Your task to perform on an android device: open a bookmark in the chrome app Image 0: 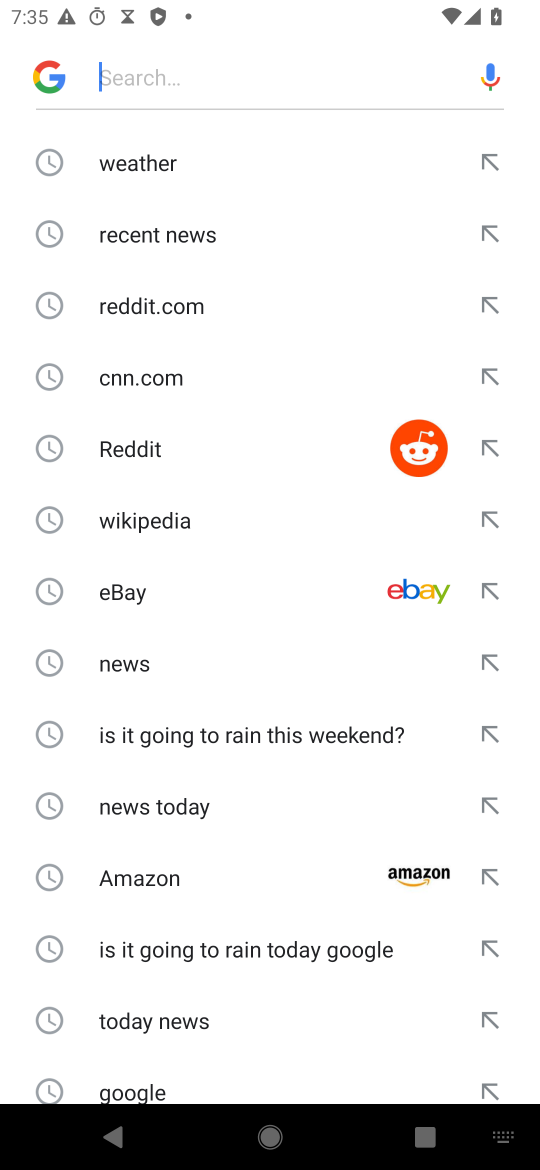
Step 0: press home button
Your task to perform on an android device: open a bookmark in the chrome app Image 1: 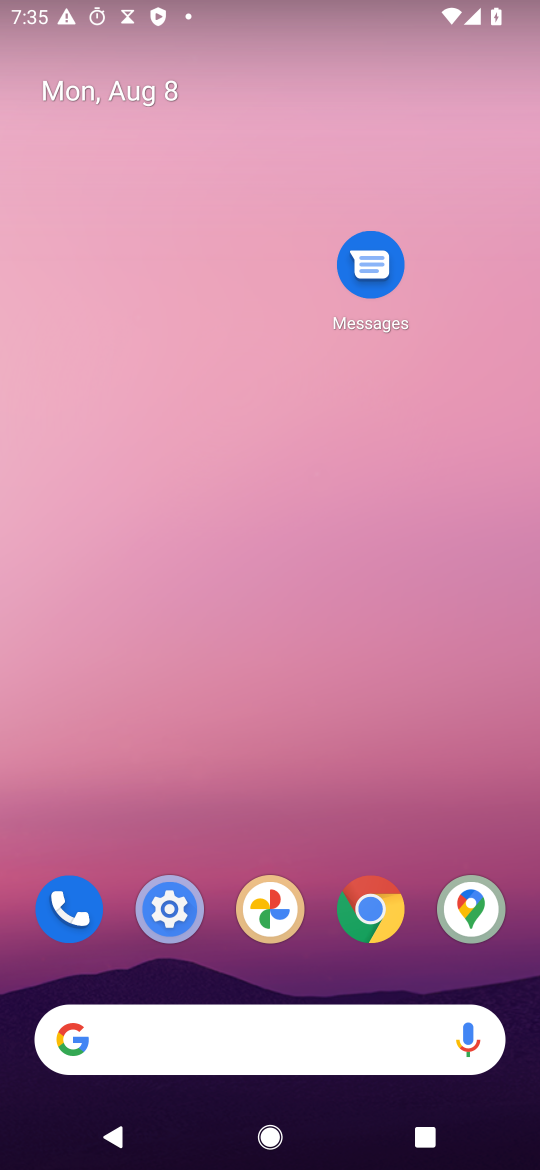
Step 1: click (375, 906)
Your task to perform on an android device: open a bookmark in the chrome app Image 2: 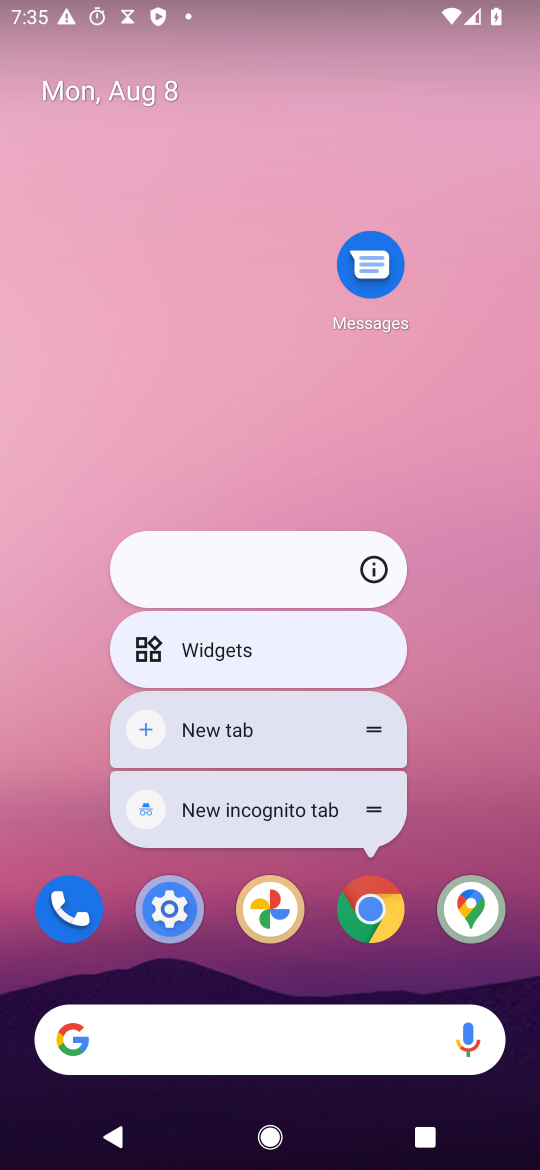
Step 2: click (375, 906)
Your task to perform on an android device: open a bookmark in the chrome app Image 3: 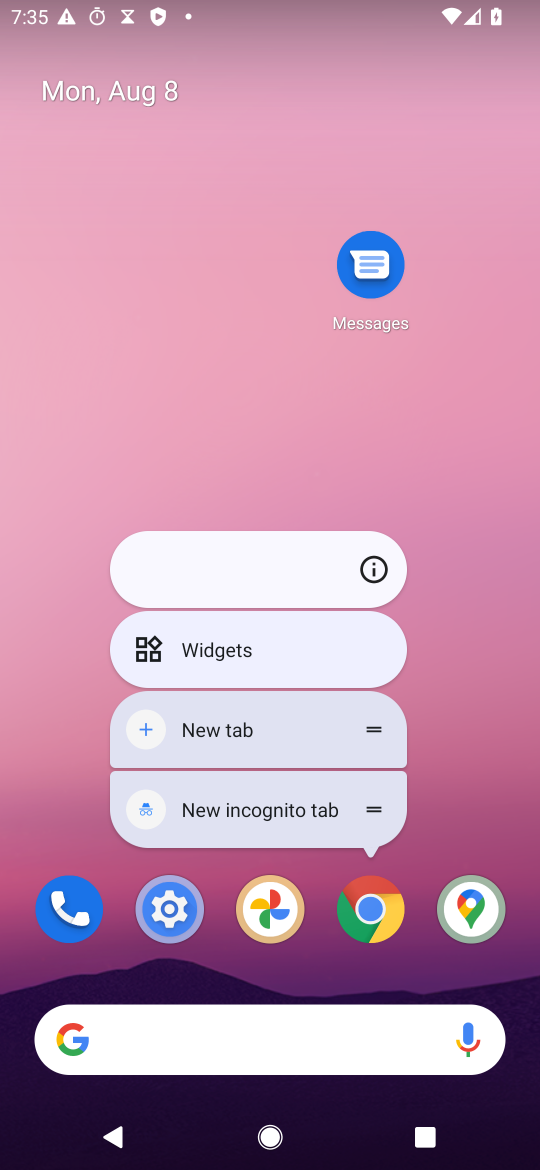
Step 3: click (368, 920)
Your task to perform on an android device: open a bookmark in the chrome app Image 4: 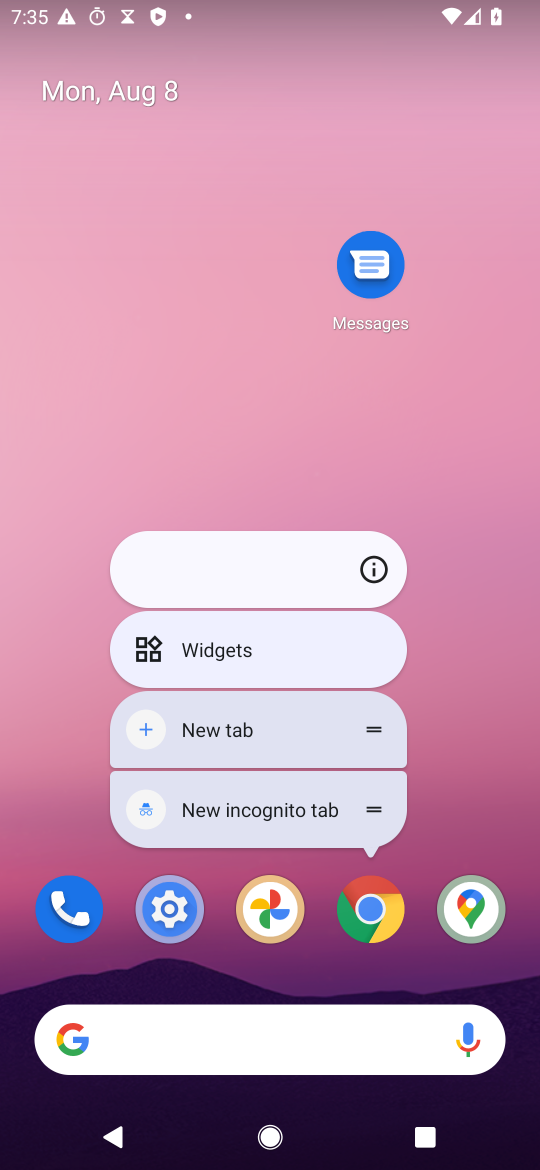
Step 4: click (368, 920)
Your task to perform on an android device: open a bookmark in the chrome app Image 5: 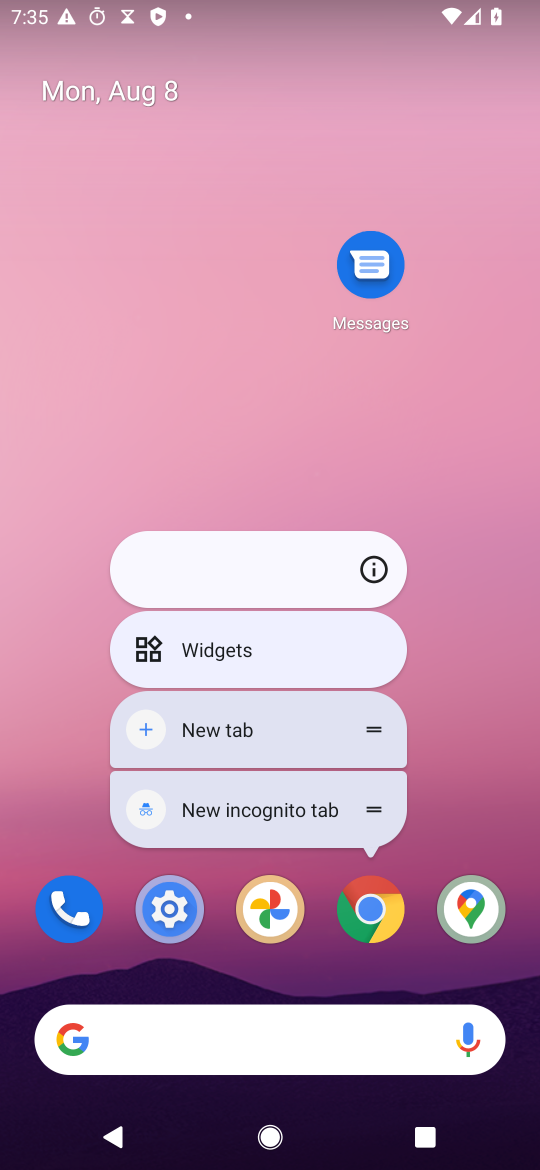
Step 5: click (368, 922)
Your task to perform on an android device: open a bookmark in the chrome app Image 6: 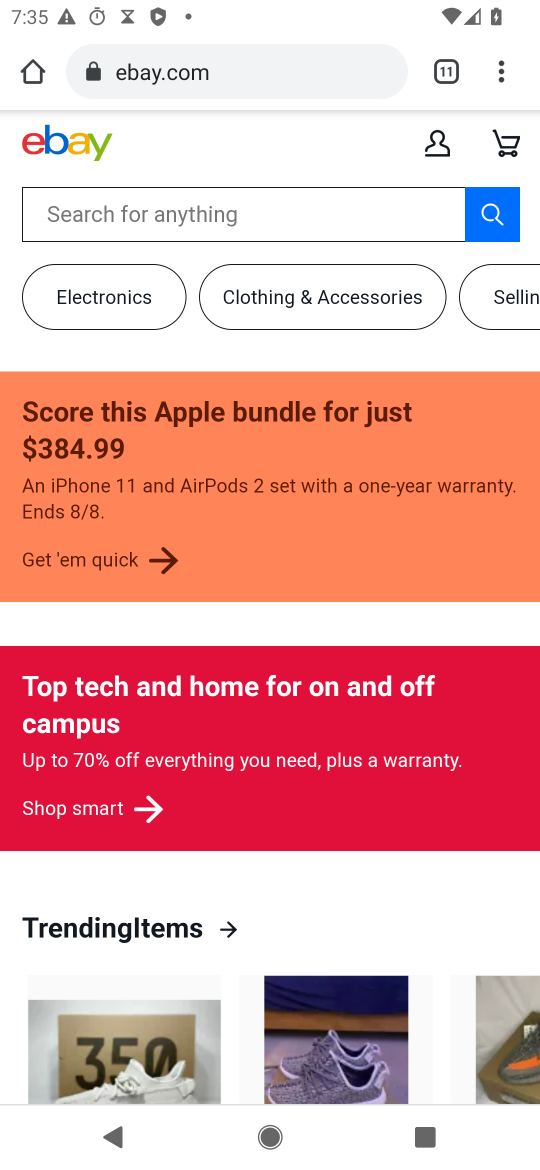
Step 6: task complete